Your task to perform on an android device: Open calendar and show me the third week of next month Image 0: 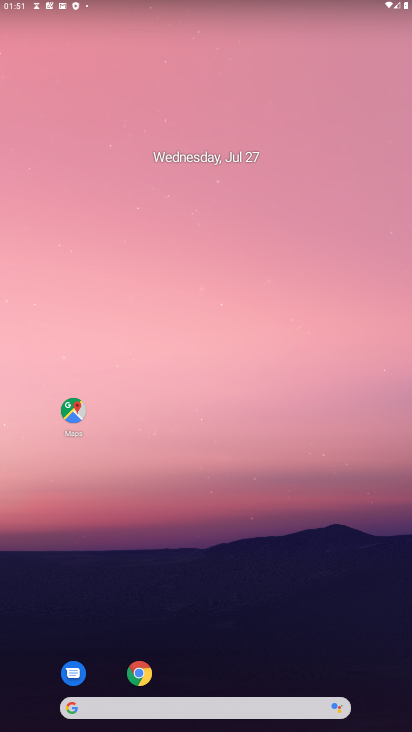
Step 0: drag from (302, 675) to (314, 336)
Your task to perform on an android device: Open calendar and show me the third week of next month Image 1: 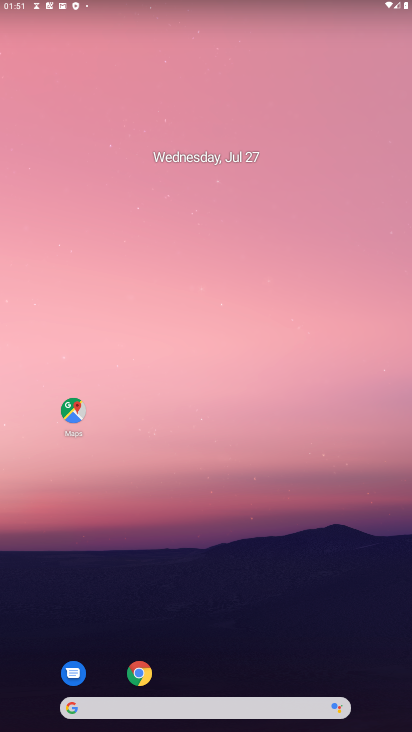
Step 1: drag from (309, 692) to (287, 220)
Your task to perform on an android device: Open calendar and show me the third week of next month Image 2: 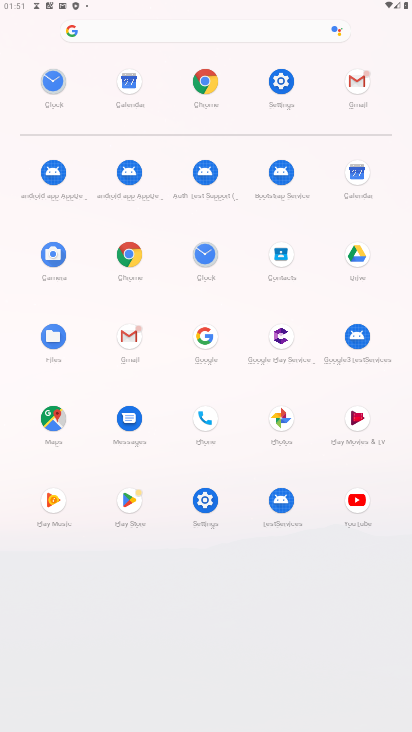
Step 2: click (351, 161)
Your task to perform on an android device: Open calendar and show me the third week of next month Image 3: 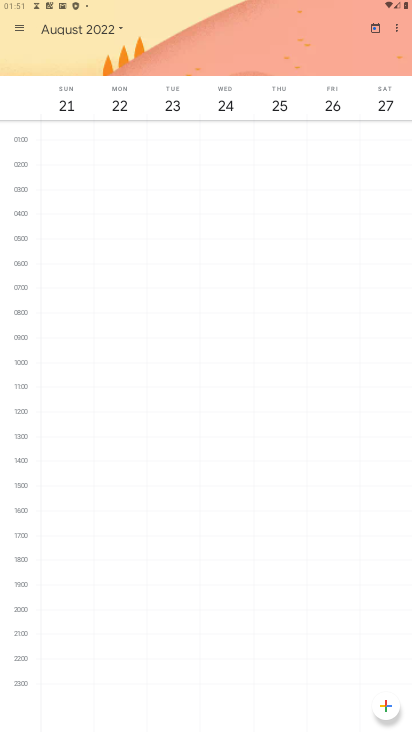
Step 3: task complete